Your task to perform on an android device: see creations saved in the google photos Image 0: 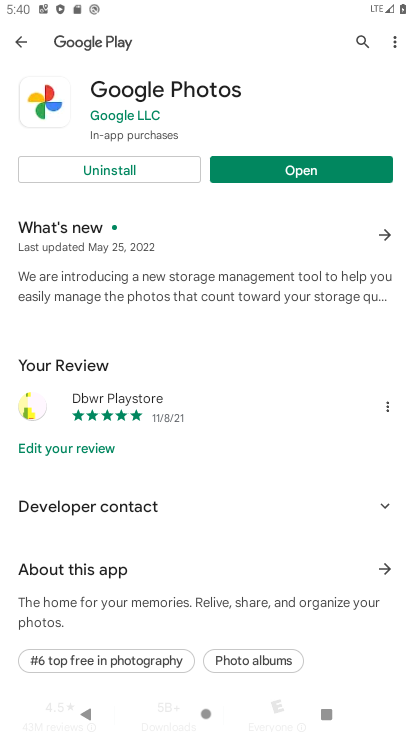
Step 0: click (341, 169)
Your task to perform on an android device: see creations saved in the google photos Image 1: 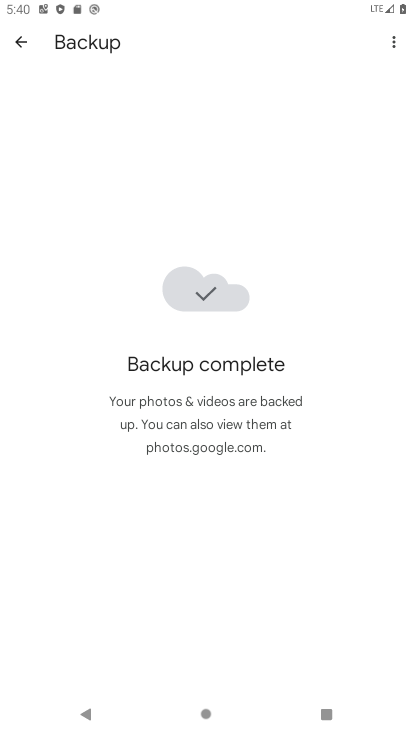
Step 1: click (20, 47)
Your task to perform on an android device: see creations saved in the google photos Image 2: 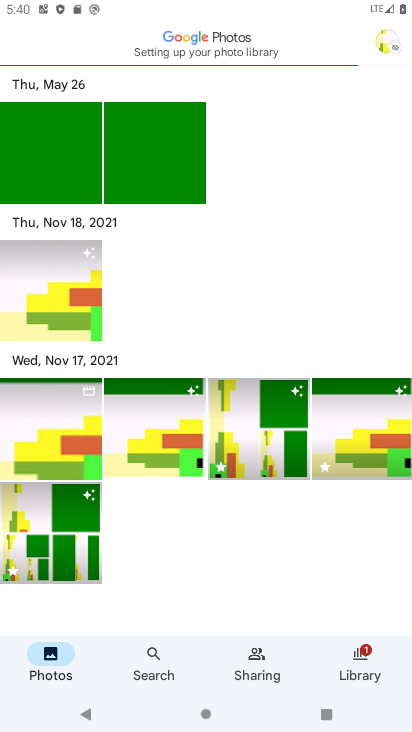
Step 2: task complete